Your task to perform on an android device: add a contact Image 0: 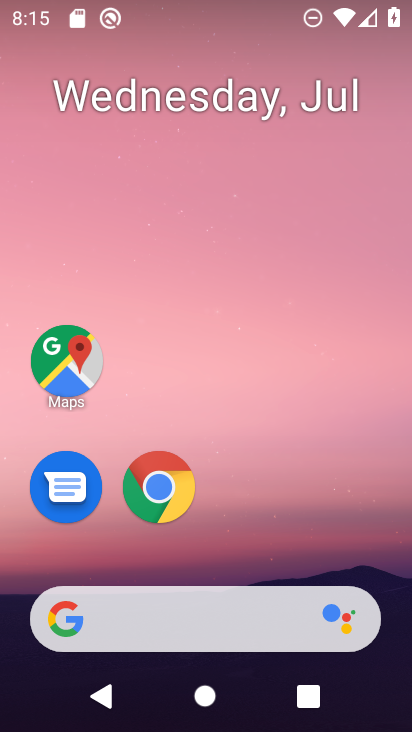
Step 0: drag from (351, 541) to (352, 90)
Your task to perform on an android device: add a contact Image 1: 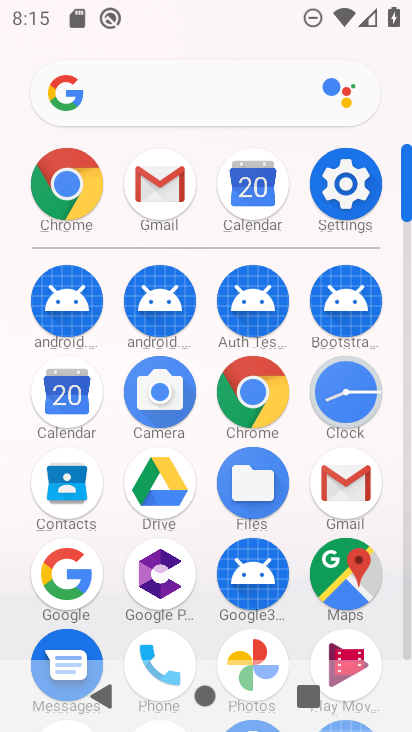
Step 1: click (74, 484)
Your task to perform on an android device: add a contact Image 2: 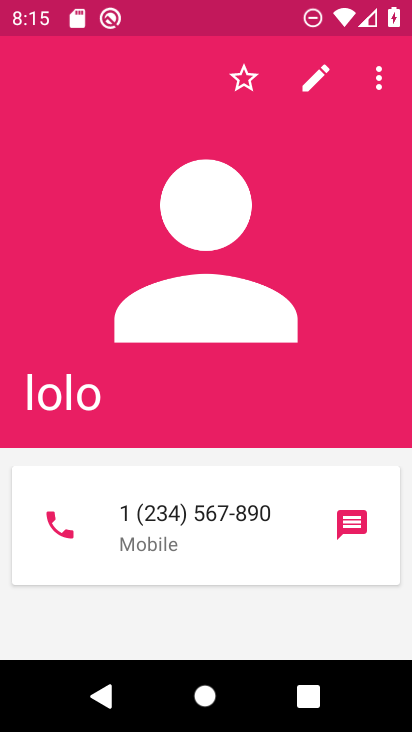
Step 2: press back button
Your task to perform on an android device: add a contact Image 3: 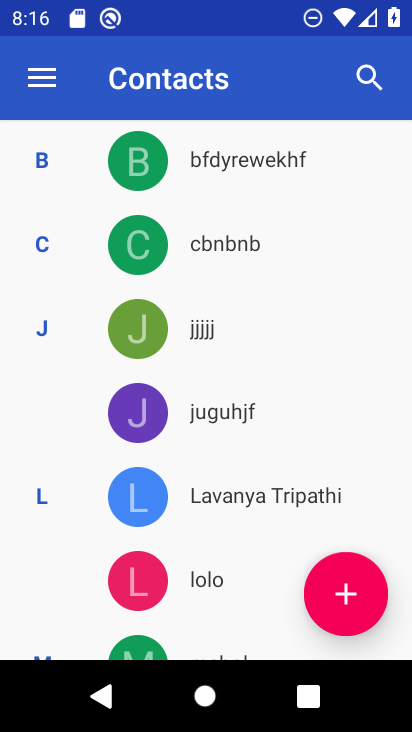
Step 3: click (356, 585)
Your task to perform on an android device: add a contact Image 4: 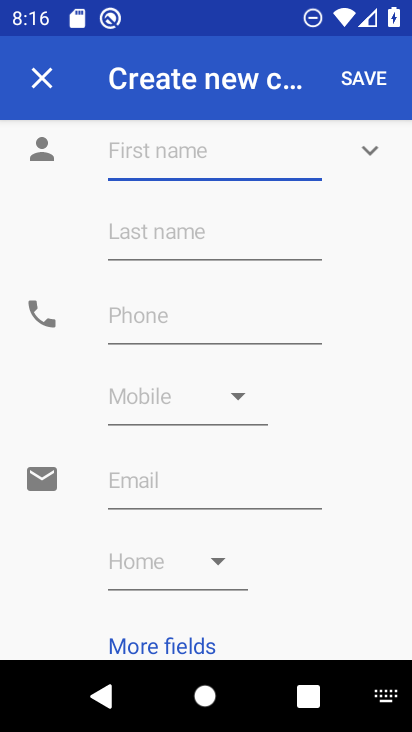
Step 4: type "me"
Your task to perform on an android device: add a contact Image 5: 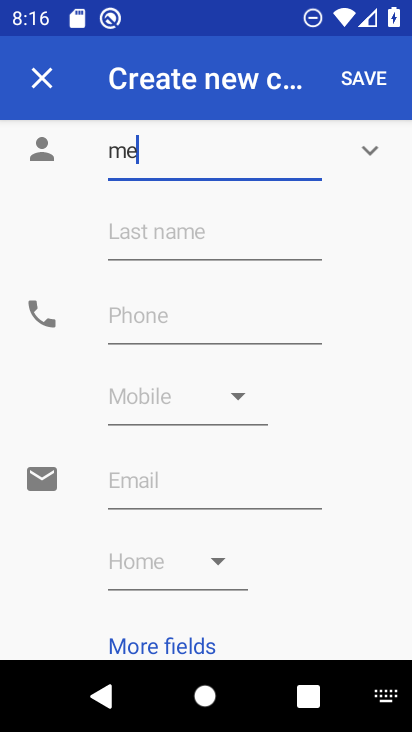
Step 5: click (323, 314)
Your task to perform on an android device: add a contact Image 6: 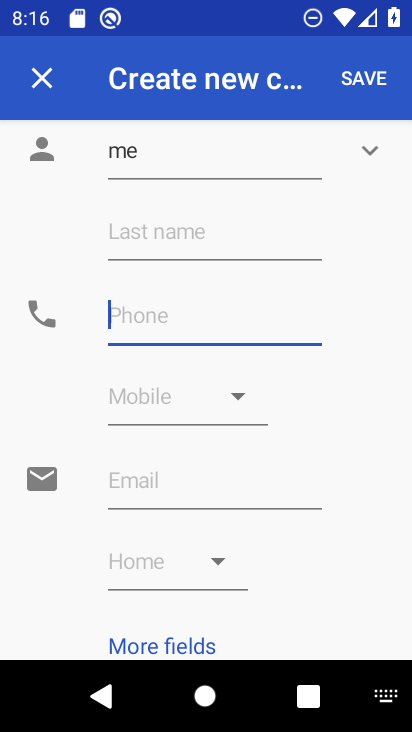
Step 6: type "123456789"
Your task to perform on an android device: add a contact Image 7: 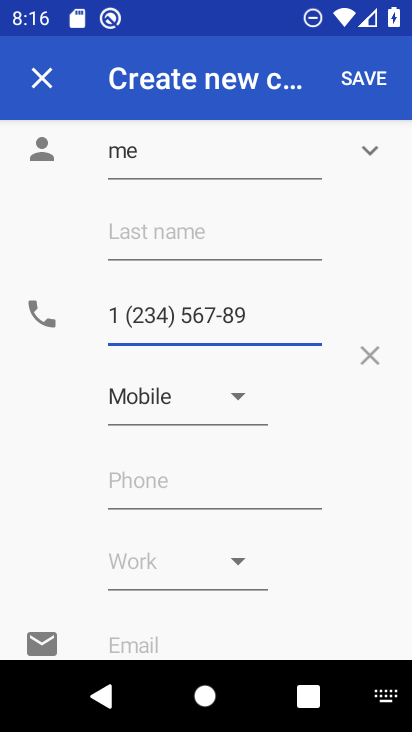
Step 7: click (378, 85)
Your task to perform on an android device: add a contact Image 8: 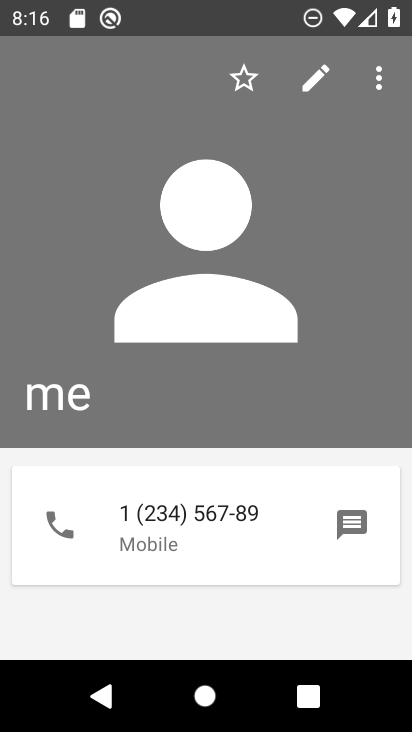
Step 8: task complete